Your task to perform on an android device: Search for seafood restaurants on Google Maps Image 0: 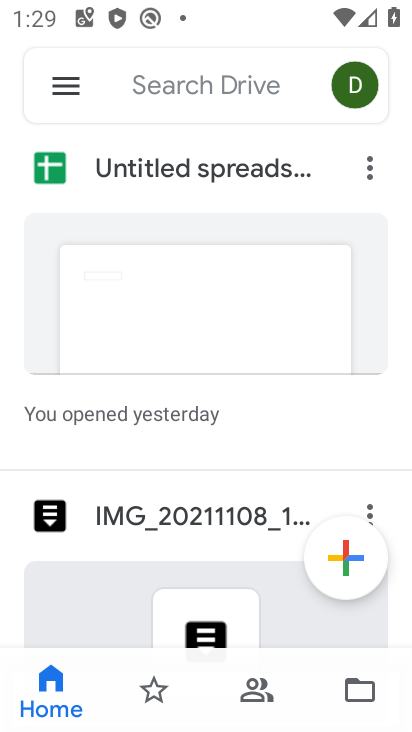
Step 0: press home button
Your task to perform on an android device: Search for seafood restaurants on Google Maps Image 1: 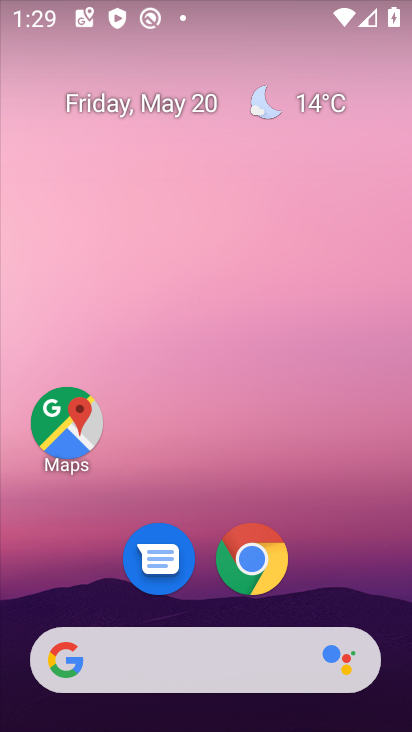
Step 1: click (82, 421)
Your task to perform on an android device: Search for seafood restaurants on Google Maps Image 2: 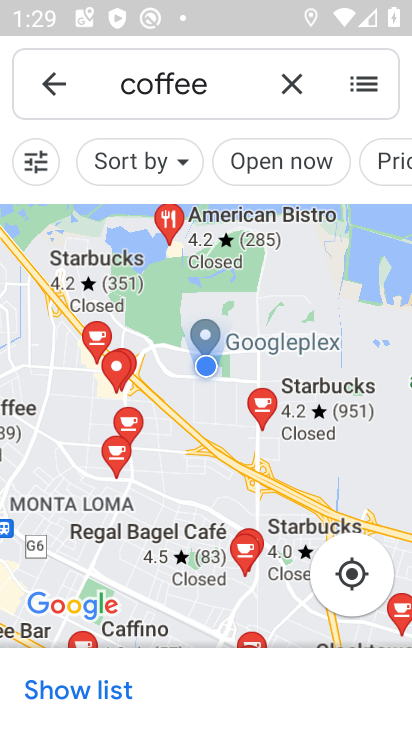
Step 2: click (286, 79)
Your task to perform on an android device: Search for seafood restaurants on Google Maps Image 3: 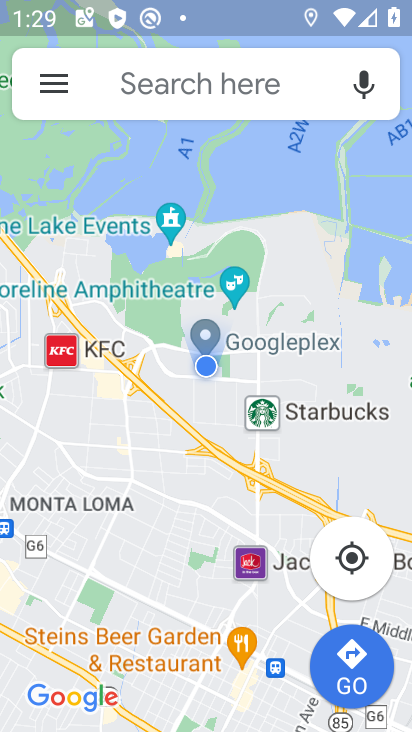
Step 3: click (286, 79)
Your task to perform on an android device: Search for seafood restaurants on Google Maps Image 4: 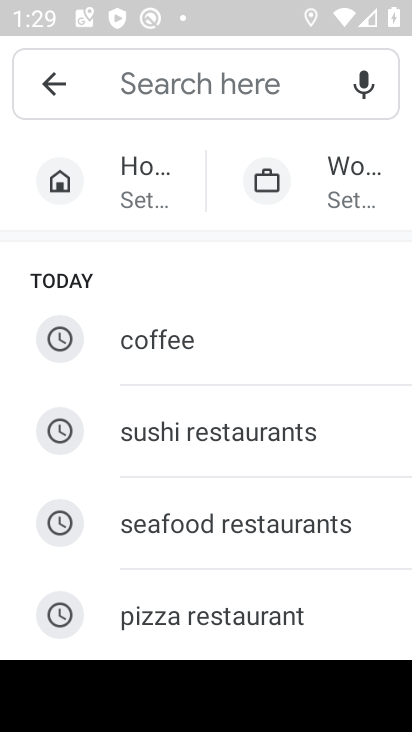
Step 4: click (236, 532)
Your task to perform on an android device: Search for seafood restaurants on Google Maps Image 5: 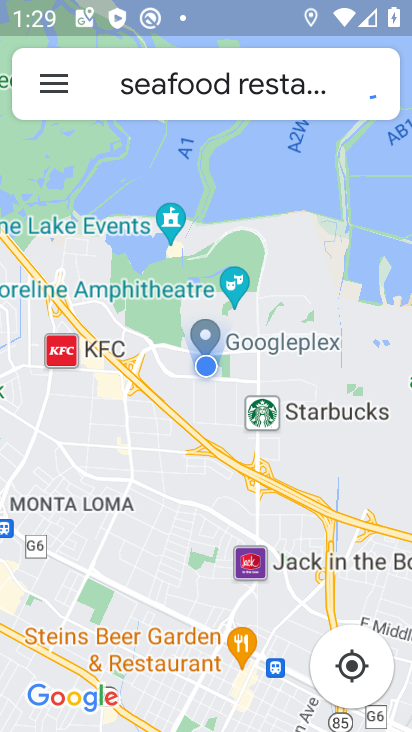
Step 5: task complete